Your task to perform on an android device: When is my next meeting? Image 0: 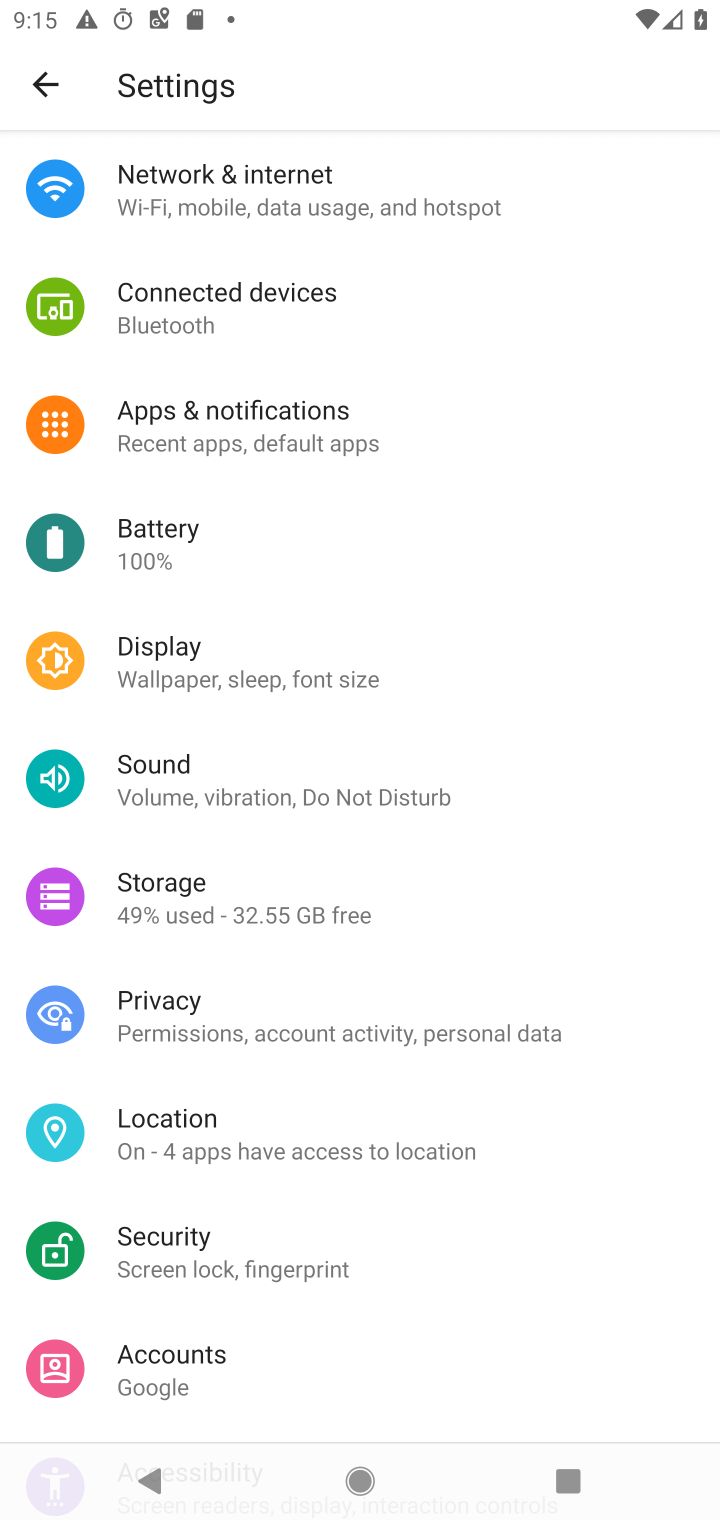
Step 0: press home button
Your task to perform on an android device: When is my next meeting? Image 1: 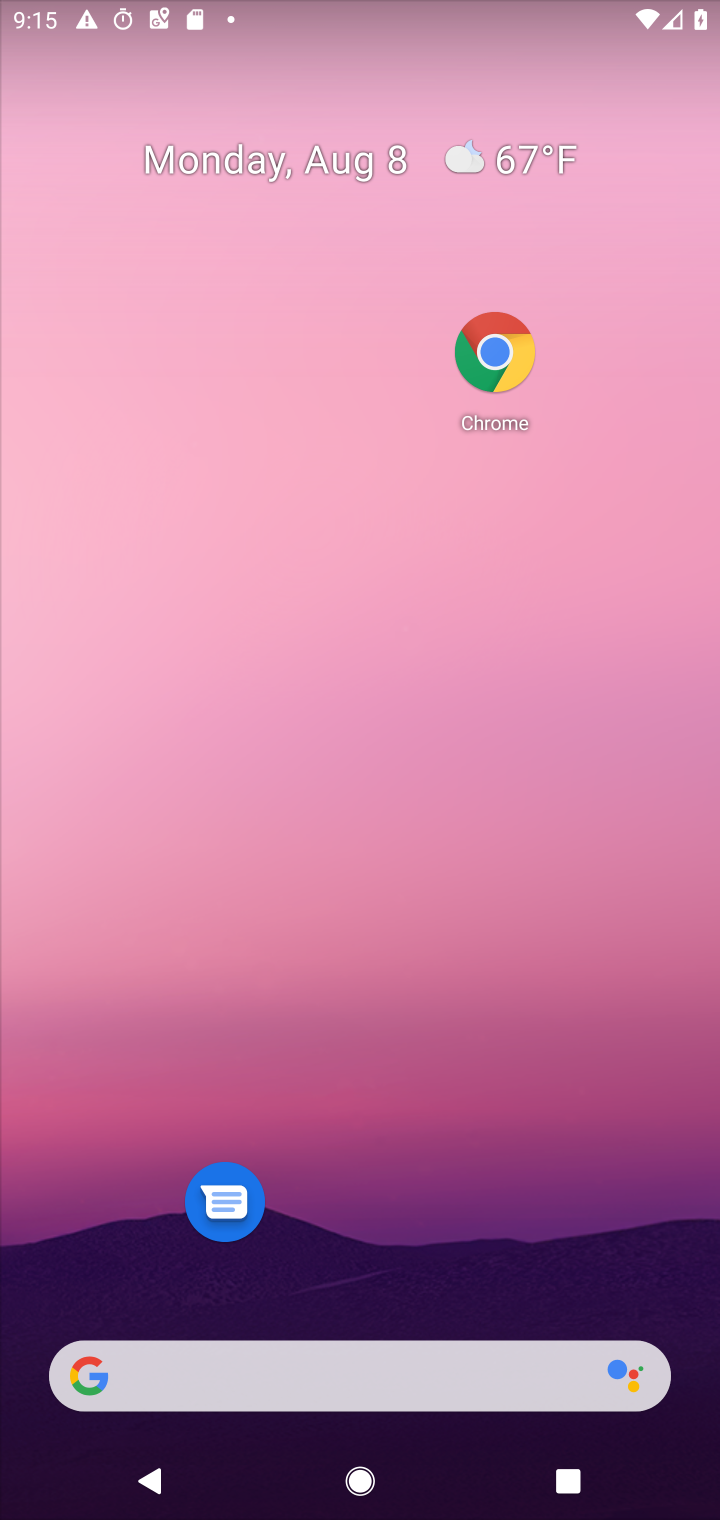
Step 1: drag from (430, 1329) to (579, 255)
Your task to perform on an android device: When is my next meeting? Image 2: 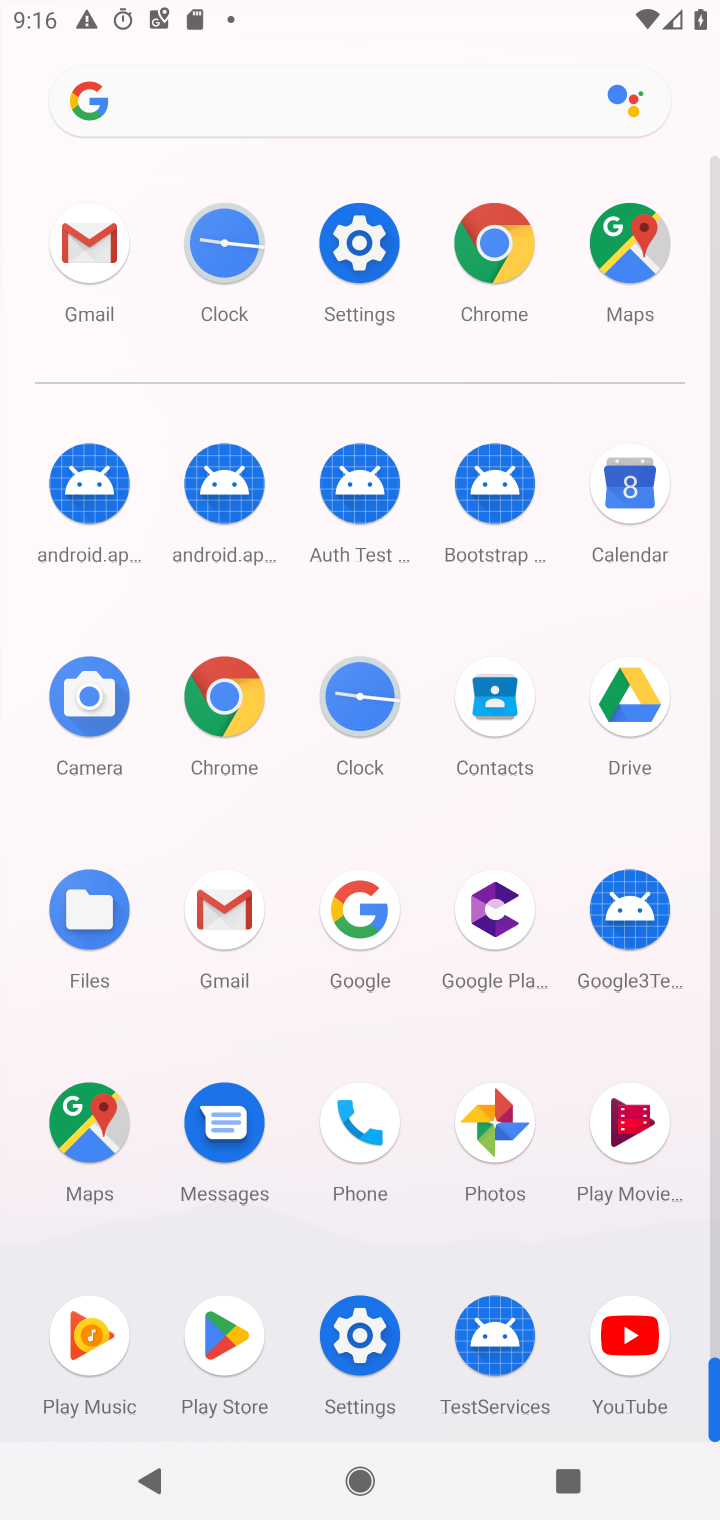
Step 2: click (613, 473)
Your task to perform on an android device: When is my next meeting? Image 3: 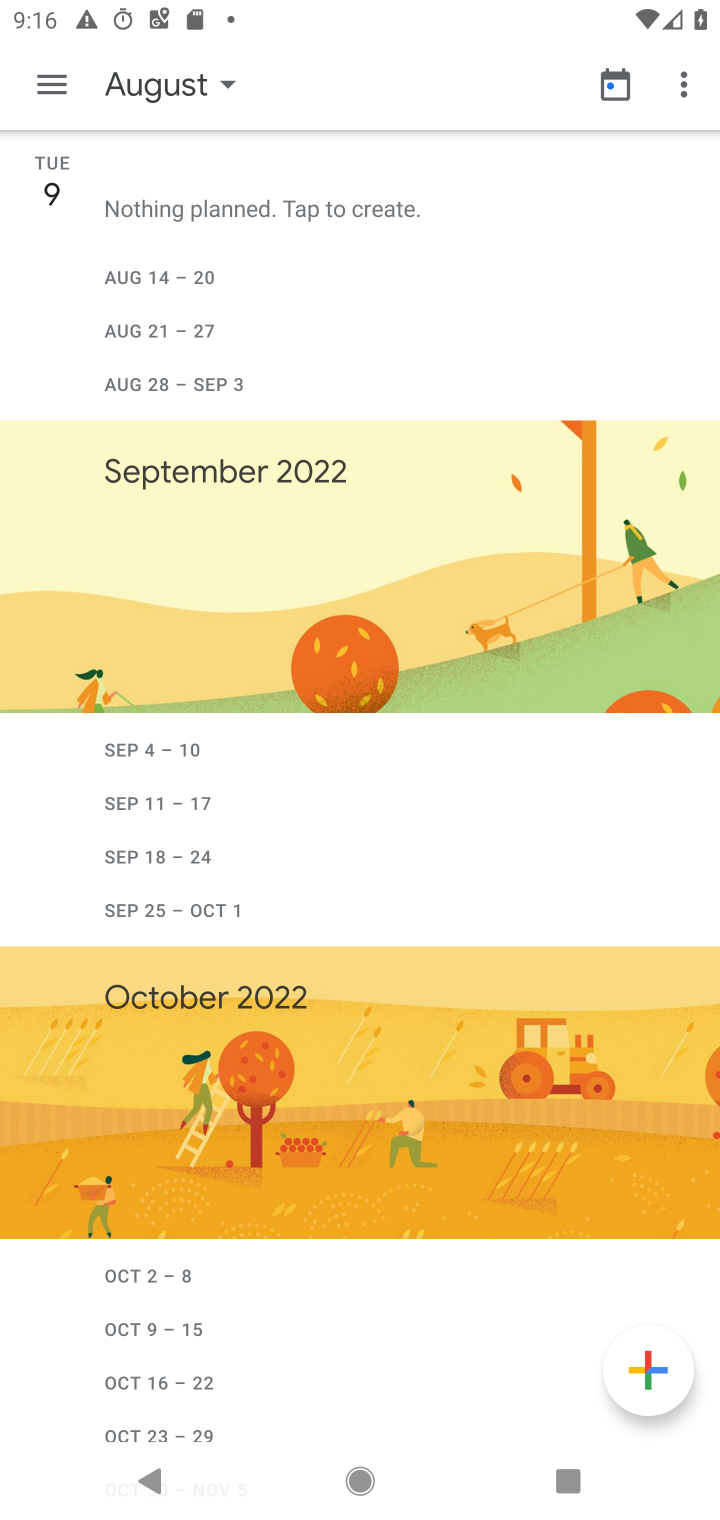
Step 3: task complete